Your task to perform on an android device: stop showing notifications on the lock screen Image 0: 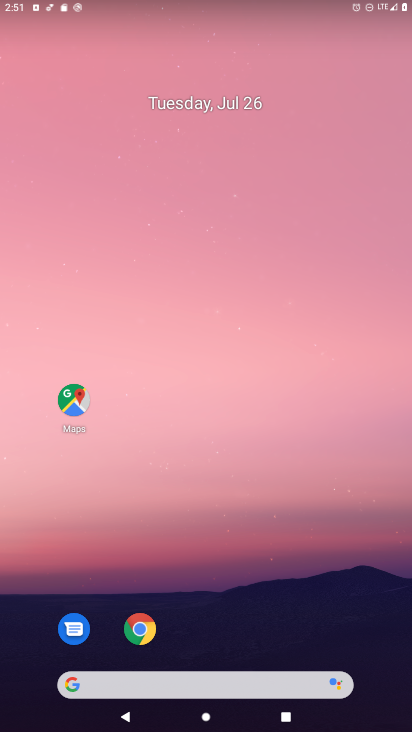
Step 0: drag from (378, 658) to (328, 196)
Your task to perform on an android device: stop showing notifications on the lock screen Image 1: 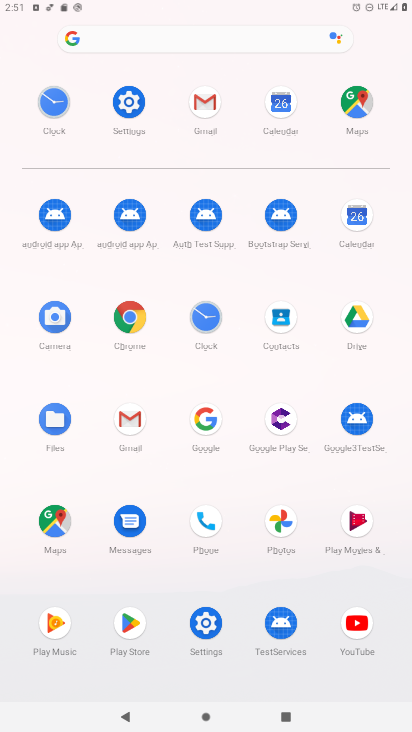
Step 1: click (209, 623)
Your task to perform on an android device: stop showing notifications on the lock screen Image 2: 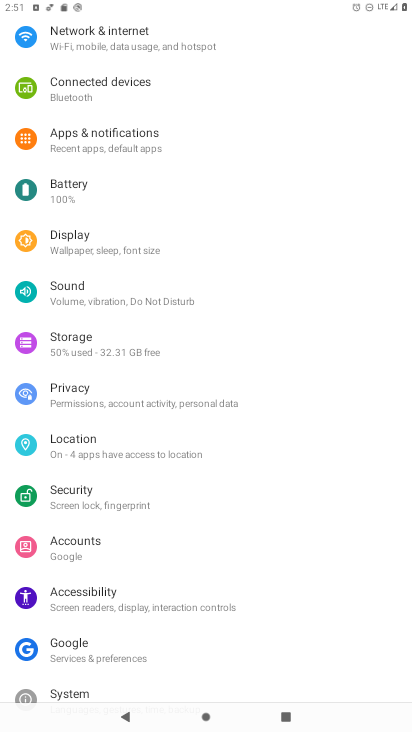
Step 2: click (106, 136)
Your task to perform on an android device: stop showing notifications on the lock screen Image 3: 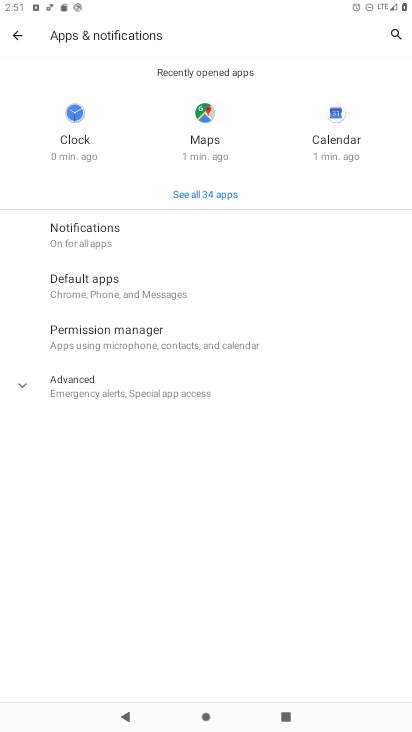
Step 3: click (86, 230)
Your task to perform on an android device: stop showing notifications on the lock screen Image 4: 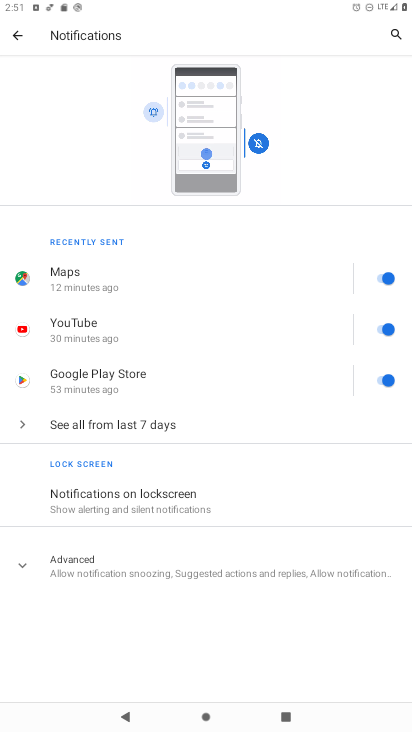
Step 4: click (139, 492)
Your task to perform on an android device: stop showing notifications on the lock screen Image 5: 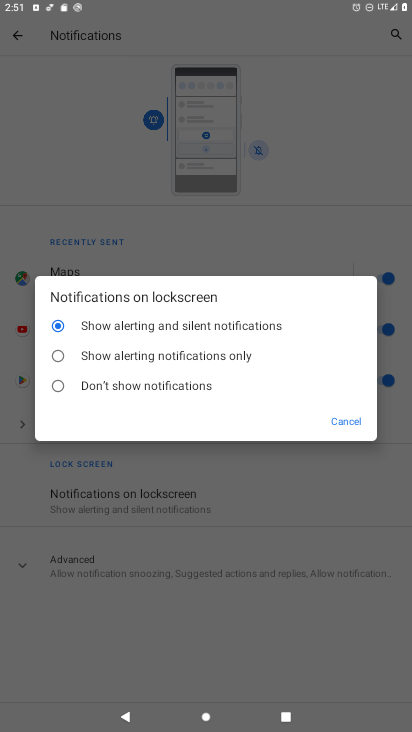
Step 5: click (54, 384)
Your task to perform on an android device: stop showing notifications on the lock screen Image 6: 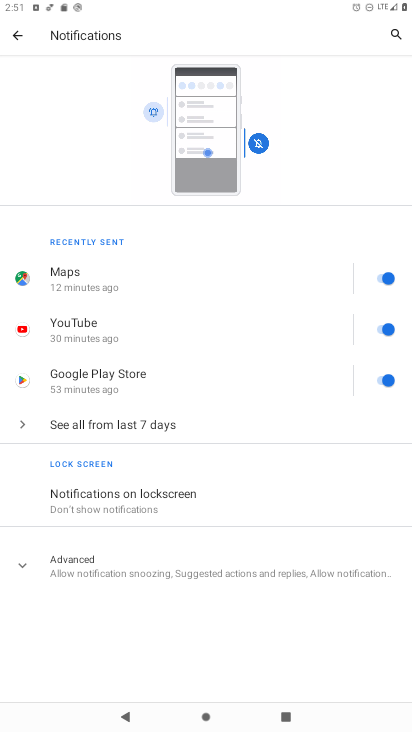
Step 6: task complete